Your task to perform on an android device: Find coffee shops on Maps Image 0: 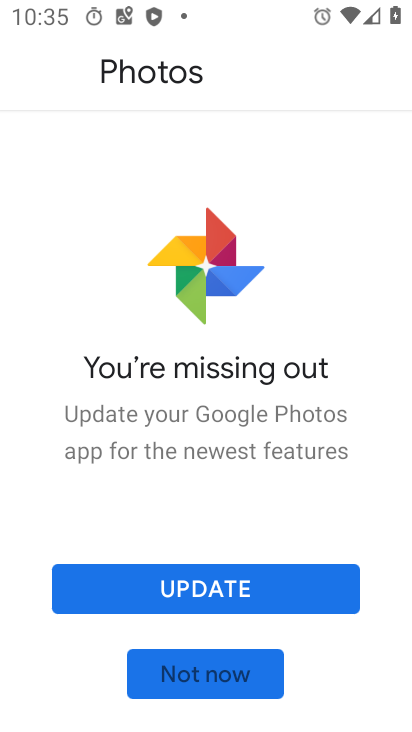
Step 0: press back button
Your task to perform on an android device: Find coffee shops on Maps Image 1: 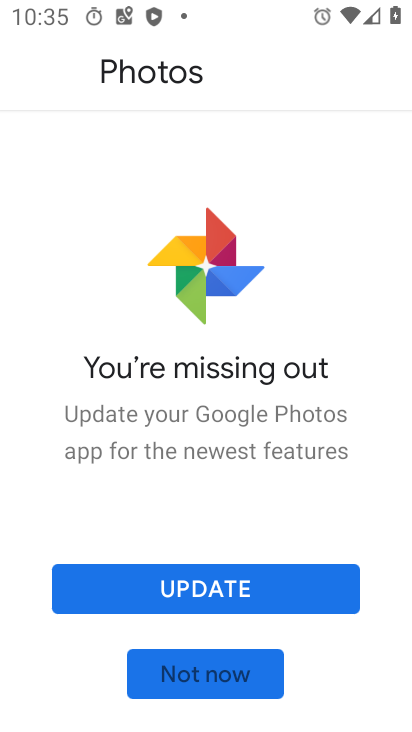
Step 1: press back button
Your task to perform on an android device: Find coffee shops on Maps Image 2: 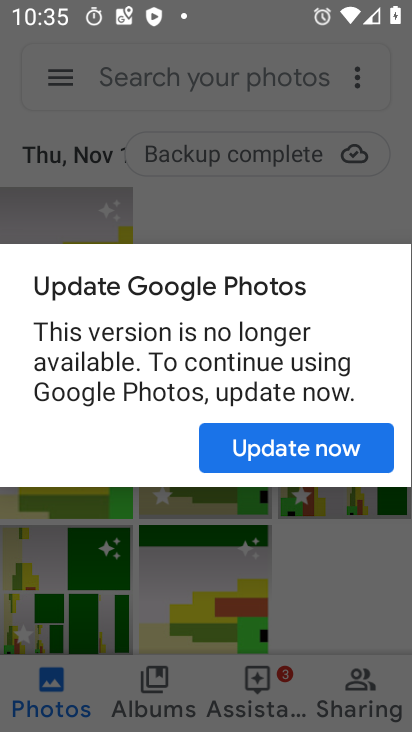
Step 2: press back button
Your task to perform on an android device: Find coffee shops on Maps Image 3: 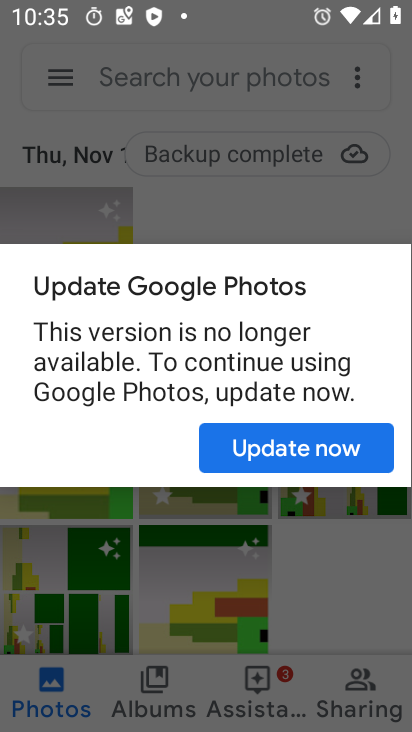
Step 3: press home button
Your task to perform on an android device: Find coffee shops on Maps Image 4: 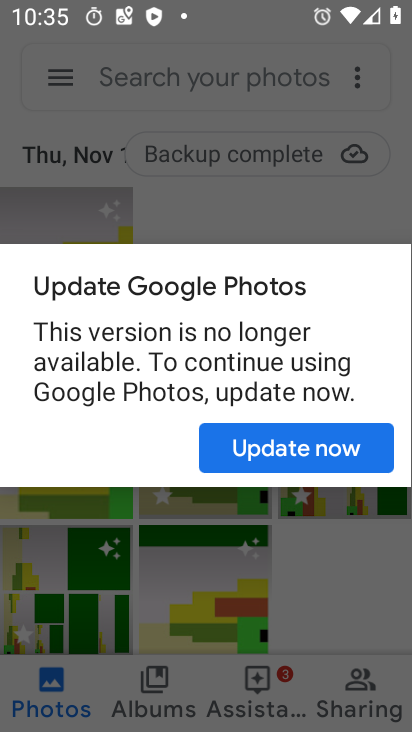
Step 4: press home button
Your task to perform on an android device: Find coffee shops on Maps Image 5: 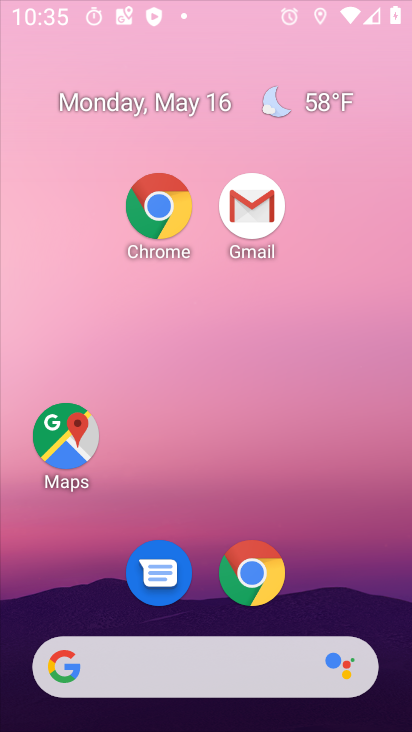
Step 5: press home button
Your task to perform on an android device: Find coffee shops on Maps Image 6: 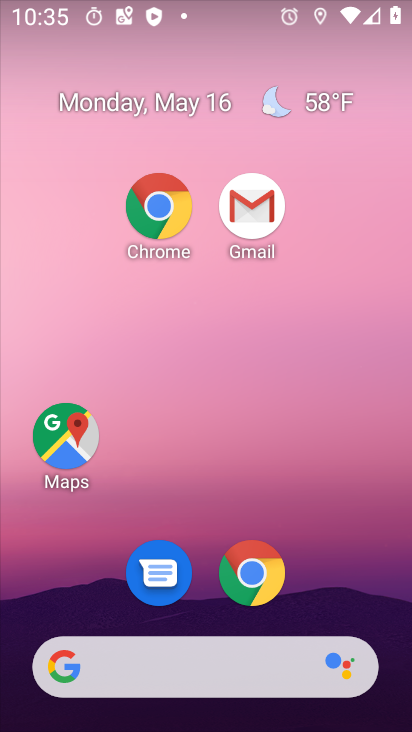
Step 6: drag from (354, 634) to (73, 33)
Your task to perform on an android device: Find coffee shops on Maps Image 7: 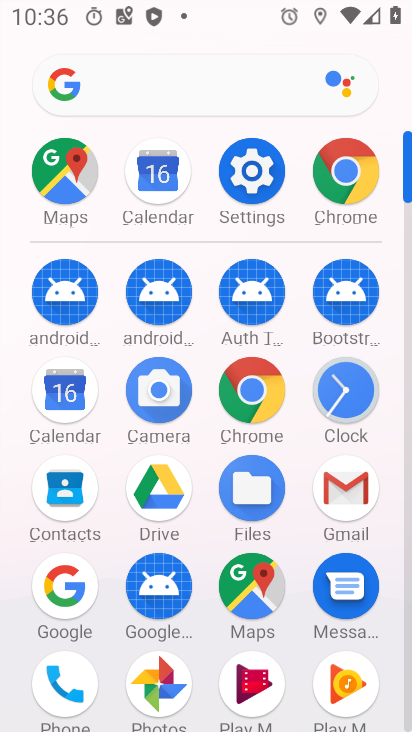
Step 7: click (256, 581)
Your task to perform on an android device: Find coffee shops on Maps Image 8: 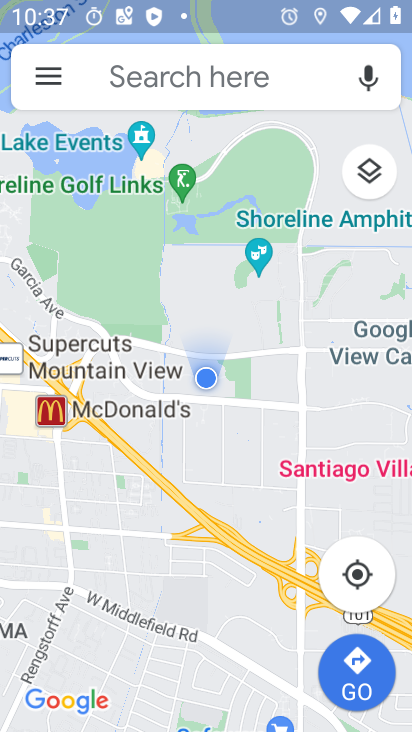
Step 8: click (115, 60)
Your task to perform on an android device: Find coffee shops on Maps Image 9: 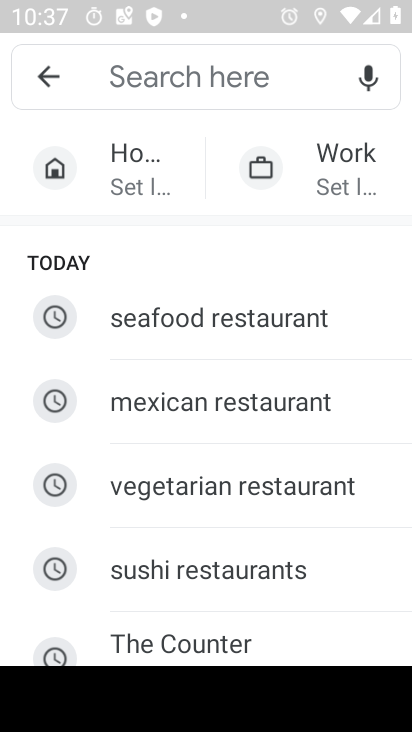
Step 9: type "coffee"
Your task to perform on an android device: Find coffee shops on Maps Image 10: 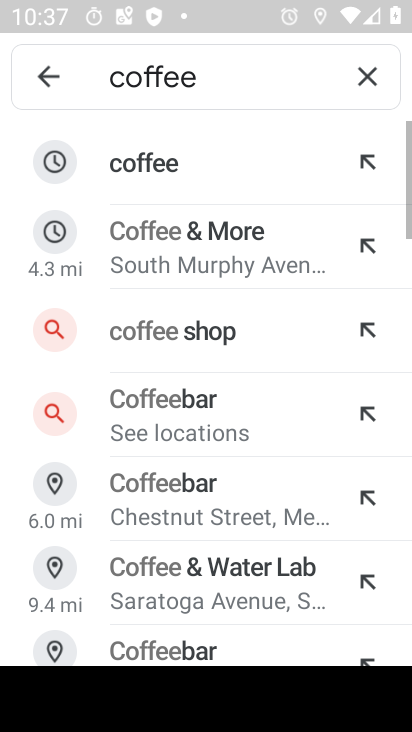
Step 10: click (145, 164)
Your task to perform on an android device: Find coffee shops on Maps Image 11: 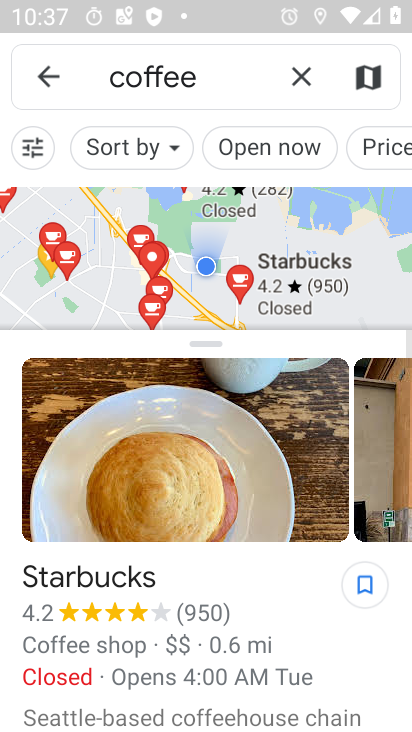
Step 11: task complete